Your task to perform on an android device: open app "Microsoft Authenticator" (install if not already installed), go to login, and select forgot password Image 0: 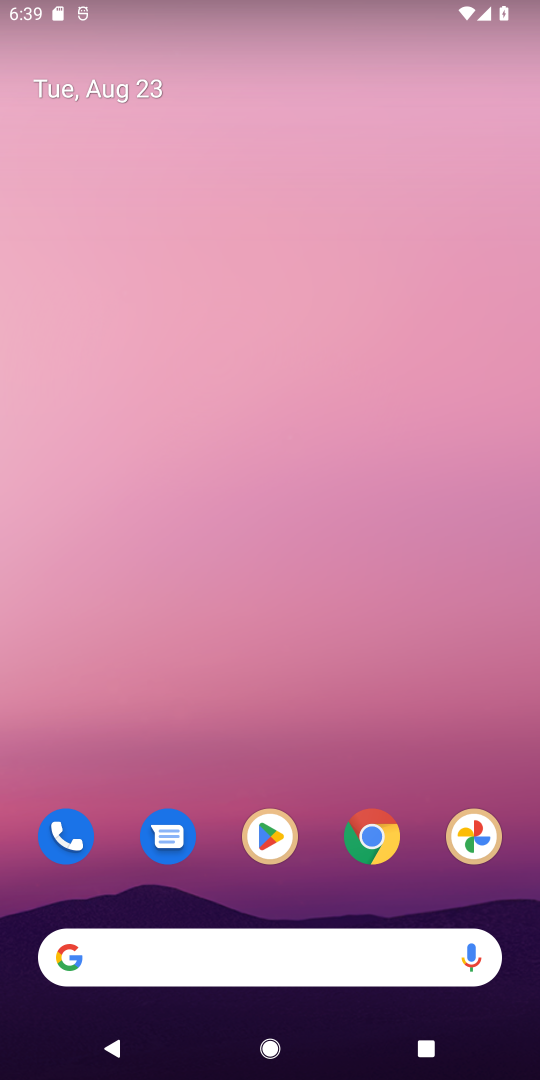
Step 0: press home button
Your task to perform on an android device: open app "Microsoft Authenticator" (install if not already installed), go to login, and select forgot password Image 1: 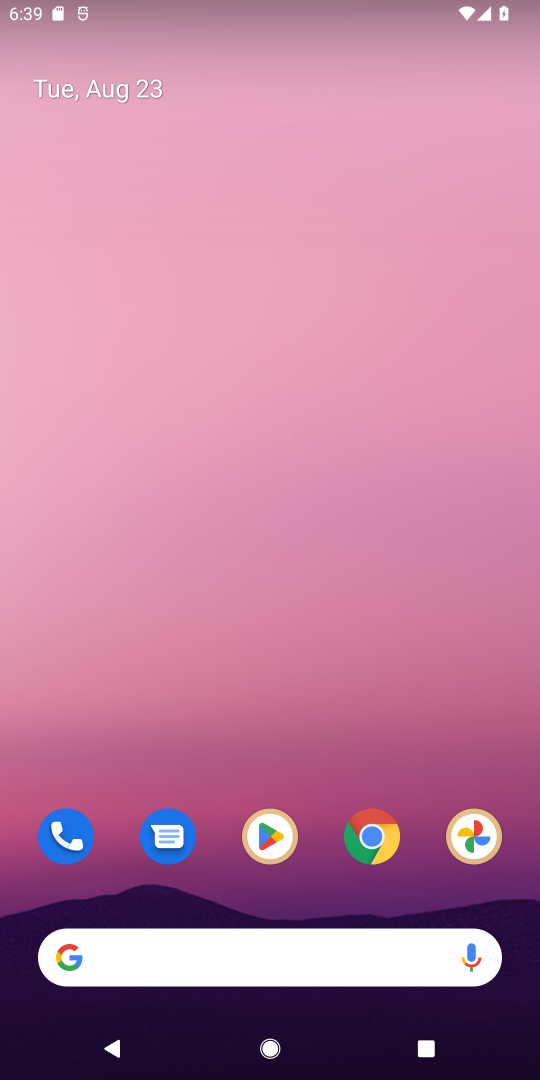
Step 1: click (262, 823)
Your task to perform on an android device: open app "Microsoft Authenticator" (install if not already installed), go to login, and select forgot password Image 2: 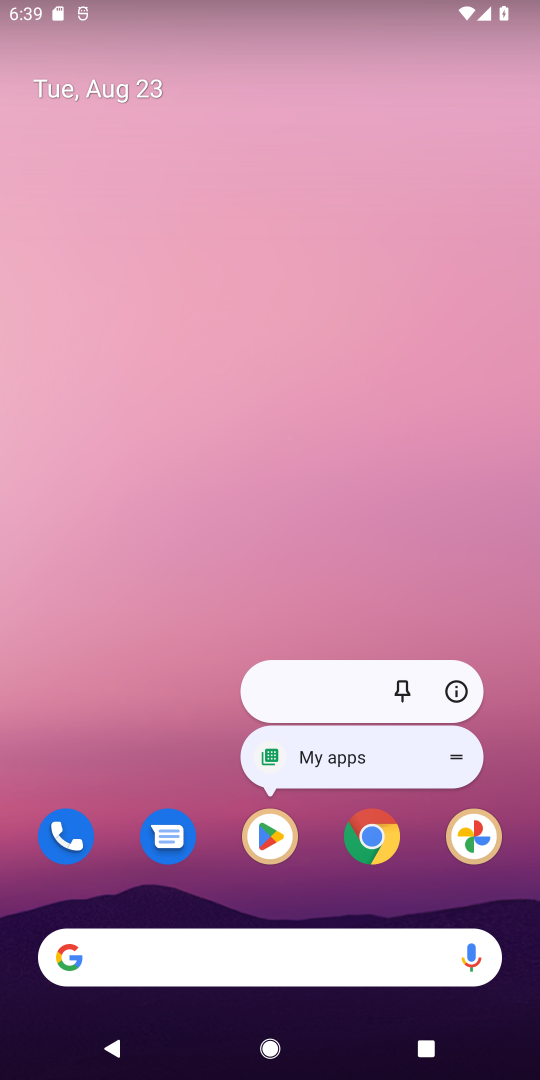
Step 2: click (262, 830)
Your task to perform on an android device: open app "Microsoft Authenticator" (install if not already installed), go to login, and select forgot password Image 3: 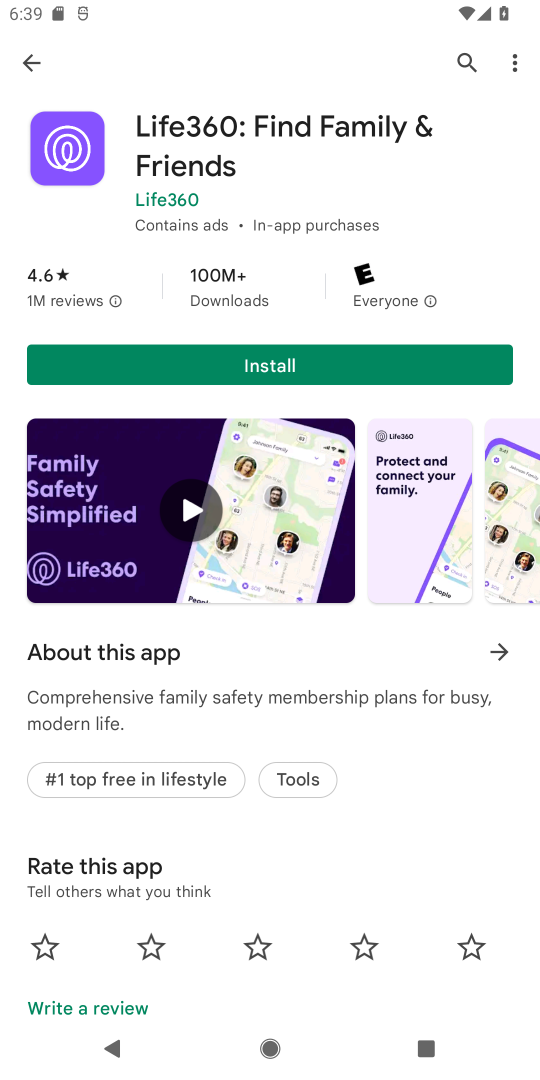
Step 3: click (469, 56)
Your task to perform on an android device: open app "Microsoft Authenticator" (install if not already installed), go to login, and select forgot password Image 4: 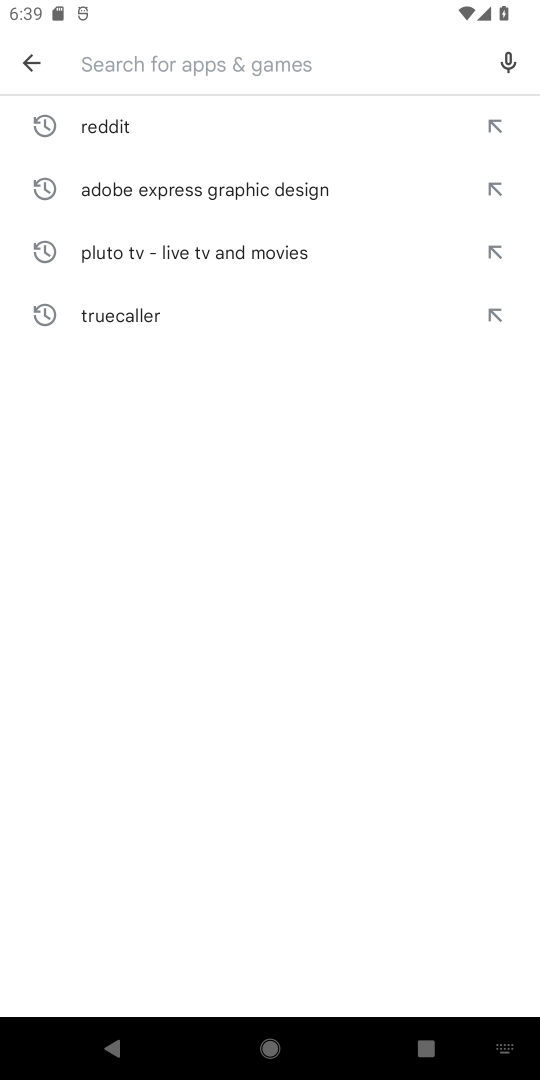
Step 4: type "Microsoft Authenticator"
Your task to perform on an android device: open app "Microsoft Authenticator" (install if not already installed), go to login, and select forgot password Image 5: 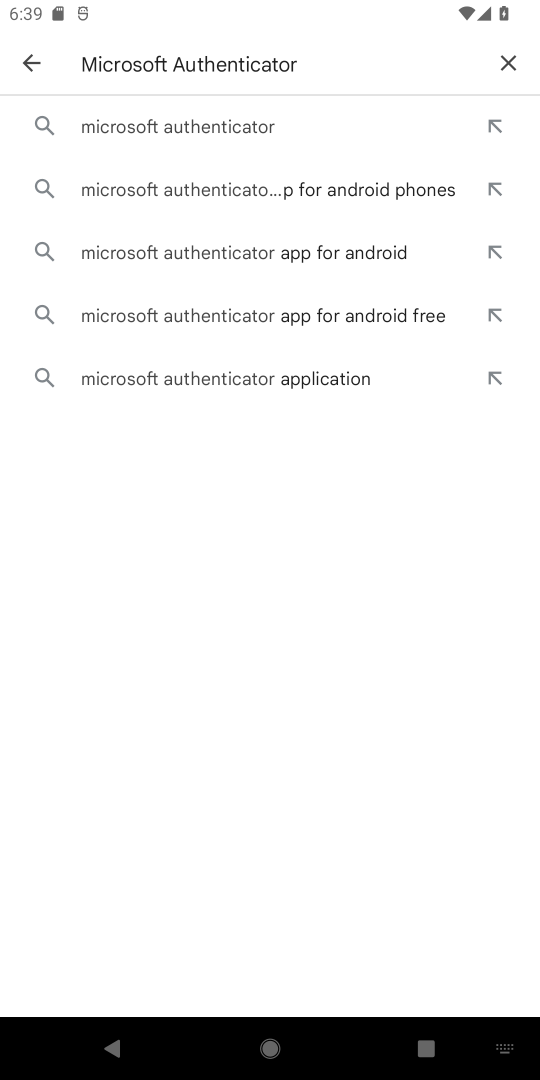
Step 5: click (252, 122)
Your task to perform on an android device: open app "Microsoft Authenticator" (install if not already installed), go to login, and select forgot password Image 6: 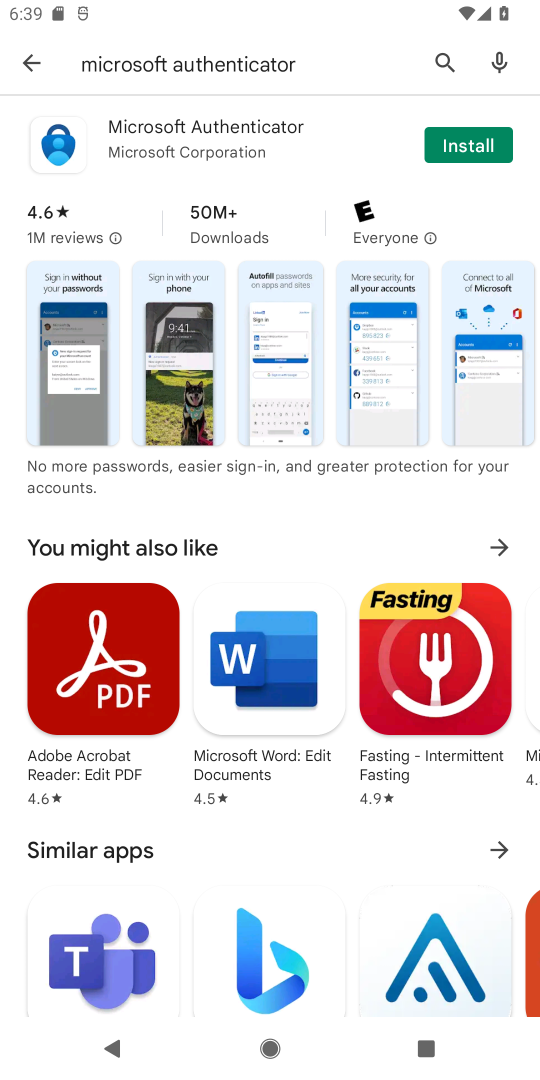
Step 6: click (486, 141)
Your task to perform on an android device: open app "Microsoft Authenticator" (install if not already installed), go to login, and select forgot password Image 7: 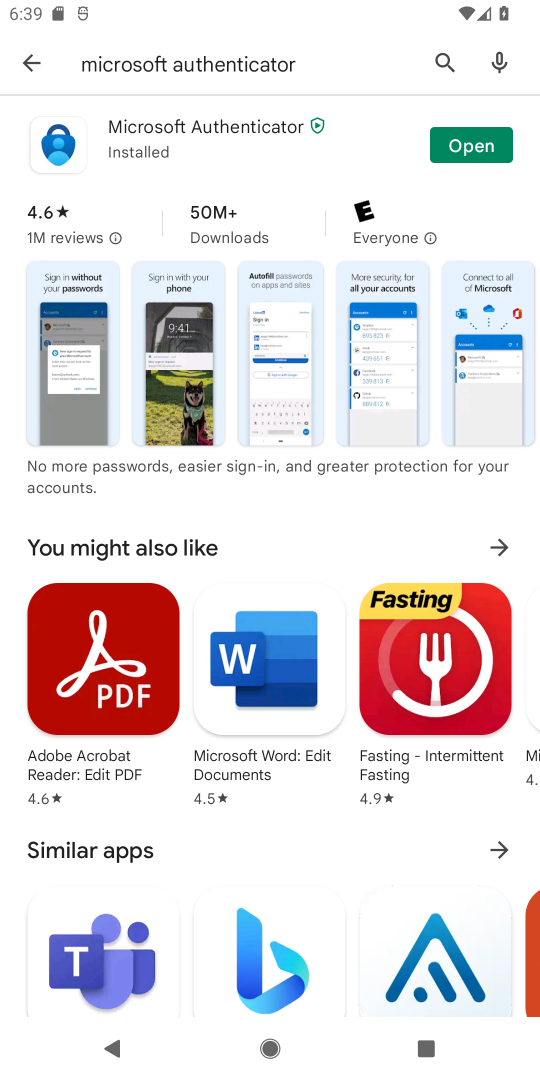
Step 7: click (478, 142)
Your task to perform on an android device: open app "Microsoft Authenticator" (install if not already installed), go to login, and select forgot password Image 8: 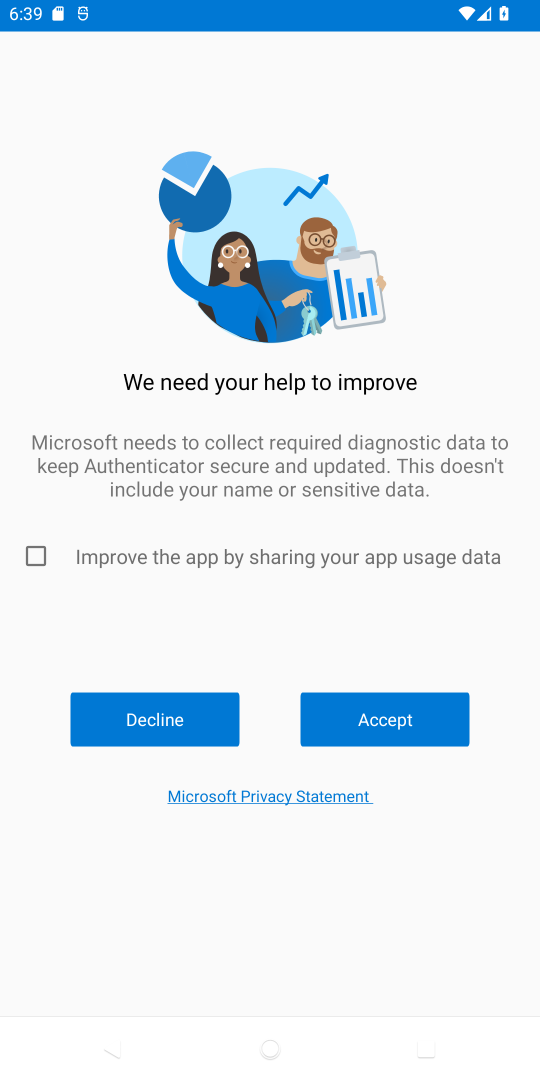
Step 8: click (418, 724)
Your task to perform on an android device: open app "Microsoft Authenticator" (install if not already installed), go to login, and select forgot password Image 9: 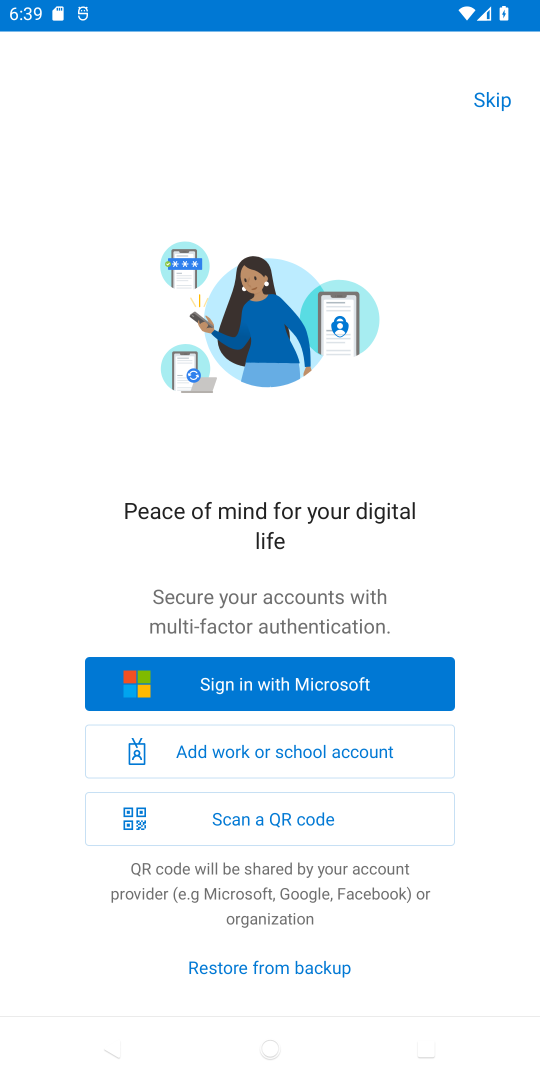
Step 9: click (489, 105)
Your task to perform on an android device: open app "Microsoft Authenticator" (install if not already installed), go to login, and select forgot password Image 10: 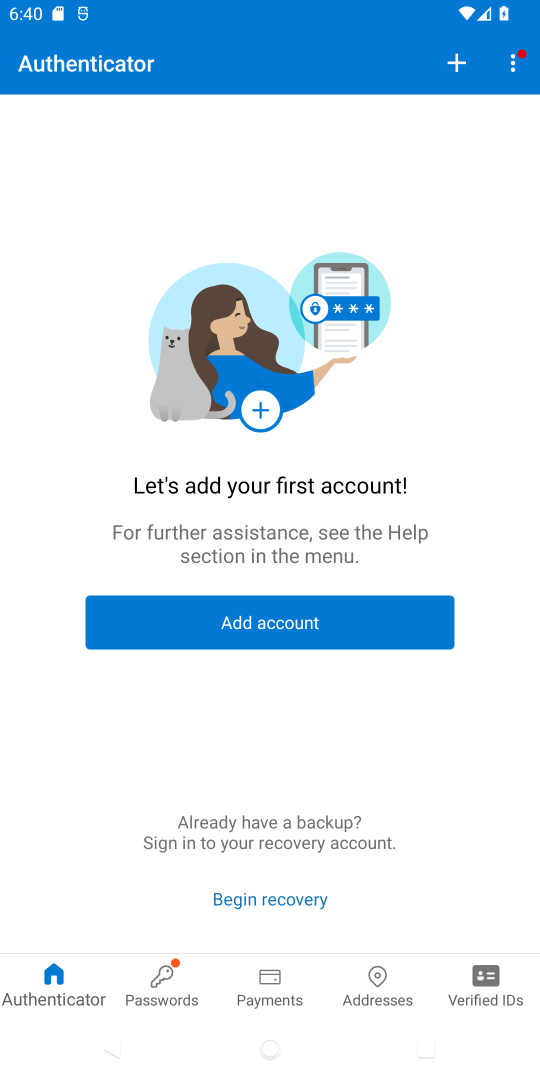
Step 10: click (354, 625)
Your task to perform on an android device: open app "Microsoft Authenticator" (install if not already installed), go to login, and select forgot password Image 11: 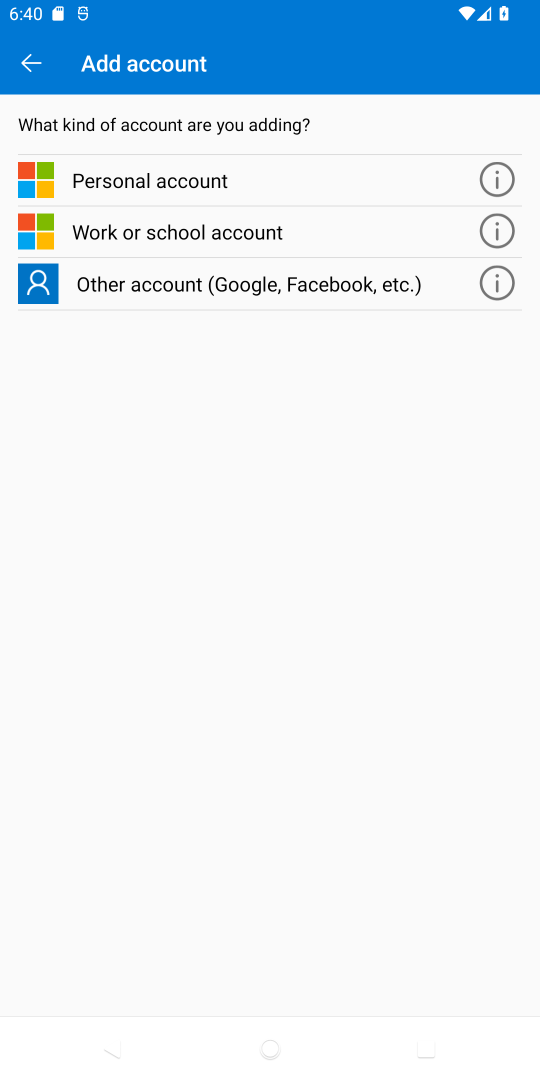
Step 11: task complete